Your task to perform on an android device: change alarm snooze length Image 0: 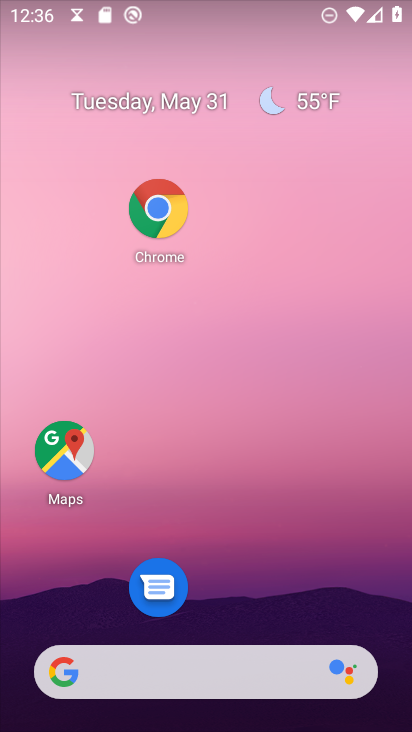
Step 0: drag from (250, 575) to (312, 117)
Your task to perform on an android device: change alarm snooze length Image 1: 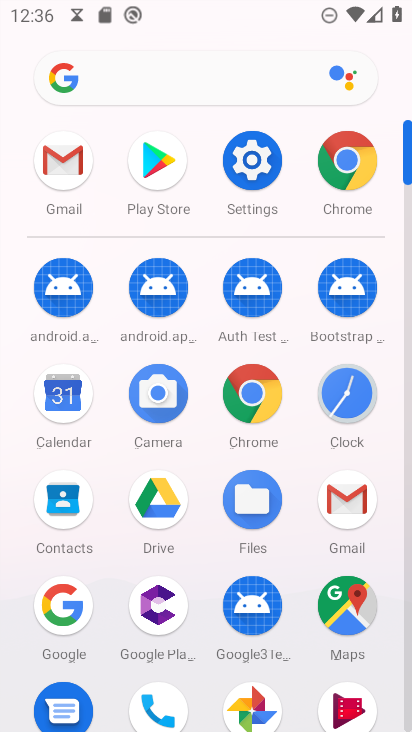
Step 1: click (348, 410)
Your task to perform on an android device: change alarm snooze length Image 2: 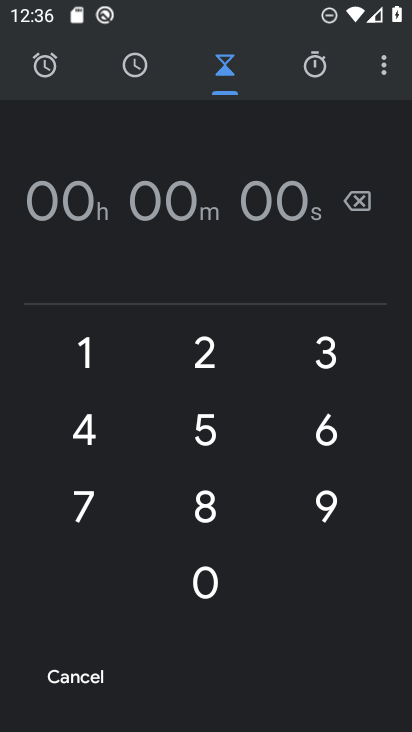
Step 2: click (388, 71)
Your task to perform on an android device: change alarm snooze length Image 3: 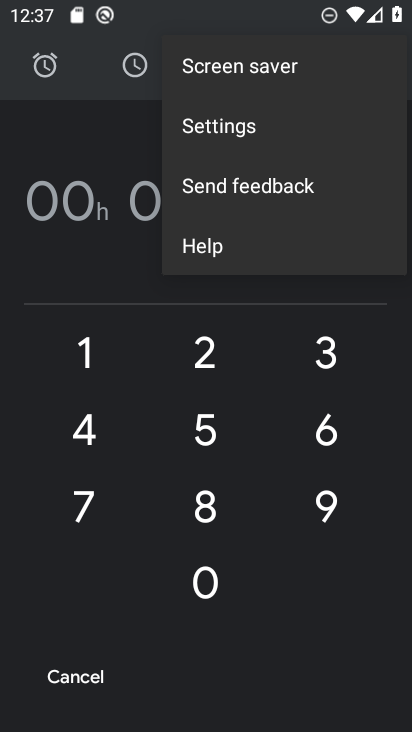
Step 3: click (255, 124)
Your task to perform on an android device: change alarm snooze length Image 4: 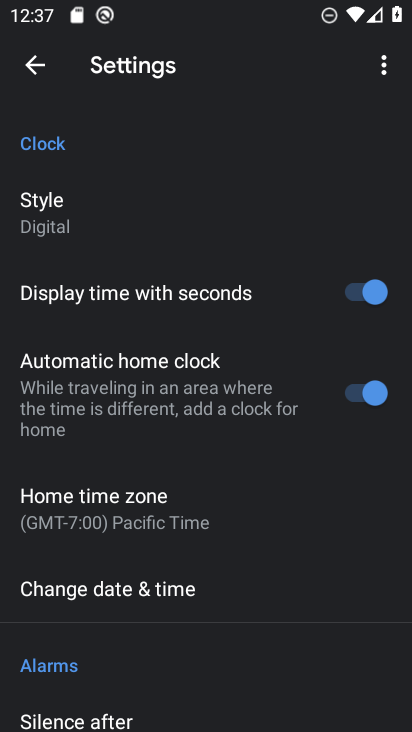
Step 4: drag from (140, 708) to (153, 403)
Your task to perform on an android device: change alarm snooze length Image 5: 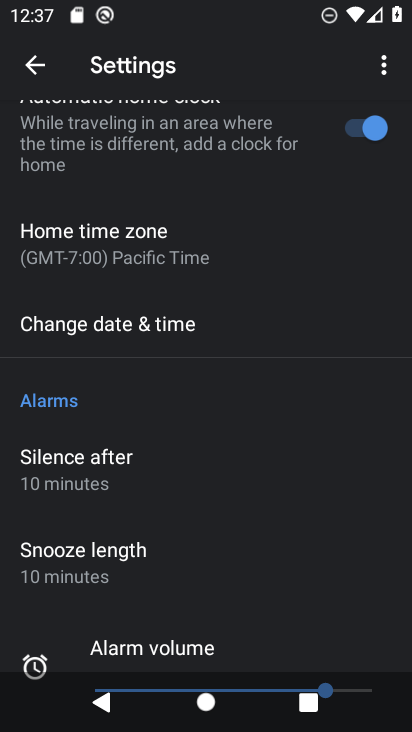
Step 5: click (107, 576)
Your task to perform on an android device: change alarm snooze length Image 6: 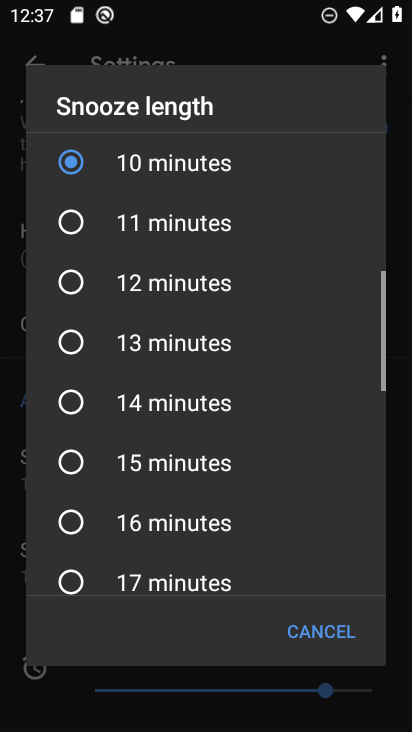
Step 6: click (107, 576)
Your task to perform on an android device: change alarm snooze length Image 7: 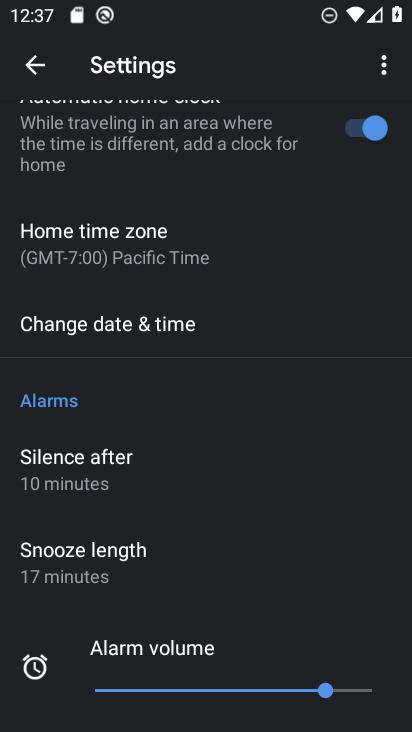
Step 7: task complete